Your task to perform on an android device: Open Amazon Image 0: 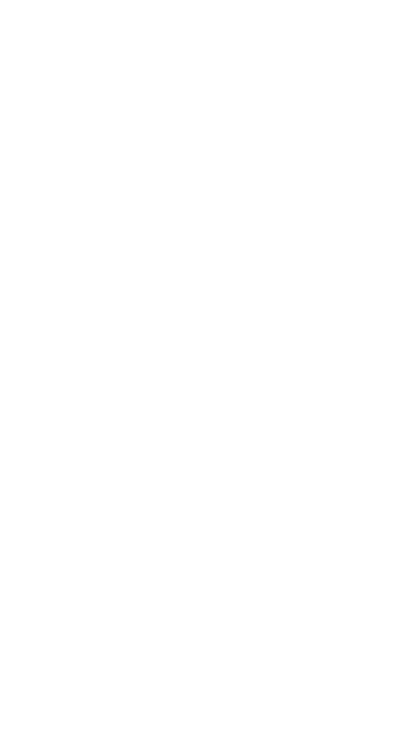
Step 0: press home button
Your task to perform on an android device: Open Amazon Image 1: 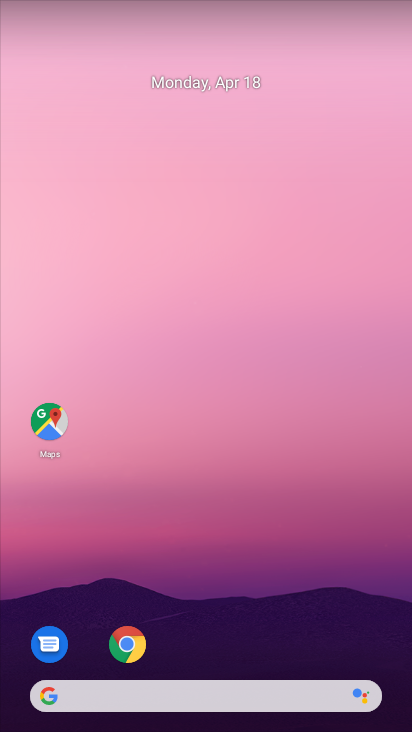
Step 1: click (124, 640)
Your task to perform on an android device: Open Amazon Image 2: 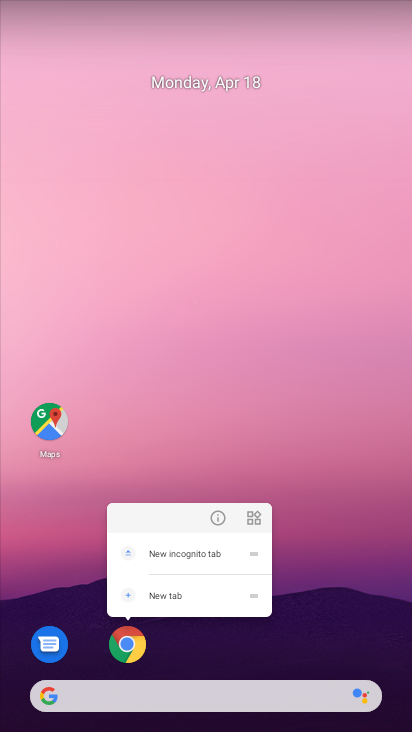
Step 2: click (124, 635)
Your task to perform on an android device: Open Amazon Image 3: 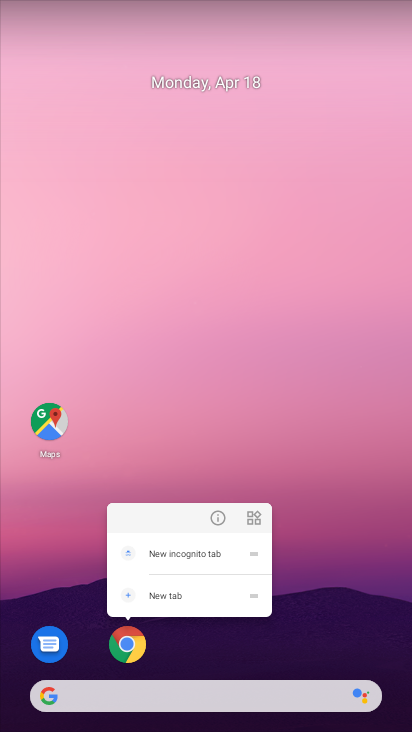
Step 3: click (124, 638)
Your task to perform on an android device: Open Amazon Image 4: 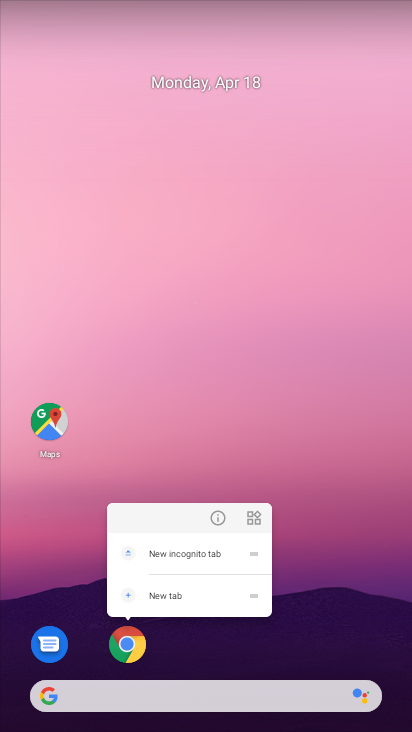
Step 4: click (183, 642)
Your task to perform on an android device: Open Amazon Image 5: 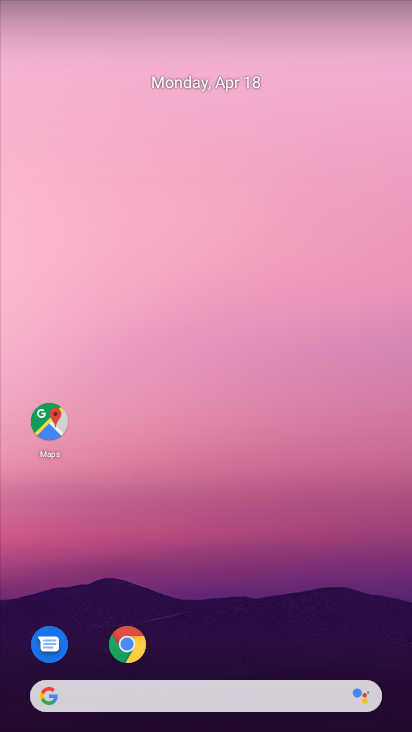
Step 5: click (333, 583)
Your task to perform on an android device: Open Amazon Image 6: 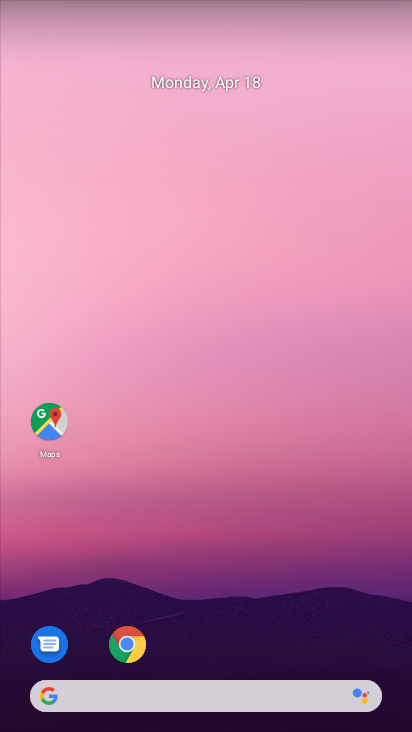
Step 6: click (126, 641)
Your task to perform on an android device: Open Amazon Image 7: 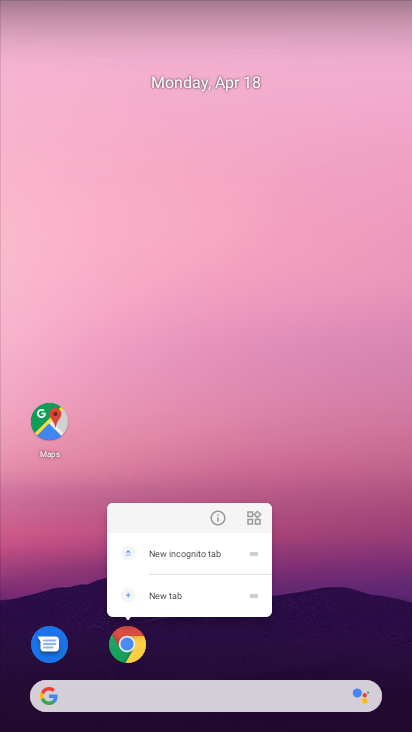
Step 7: click (172, 643)
Your task to perform on an android device: Open Amazon Image 8: 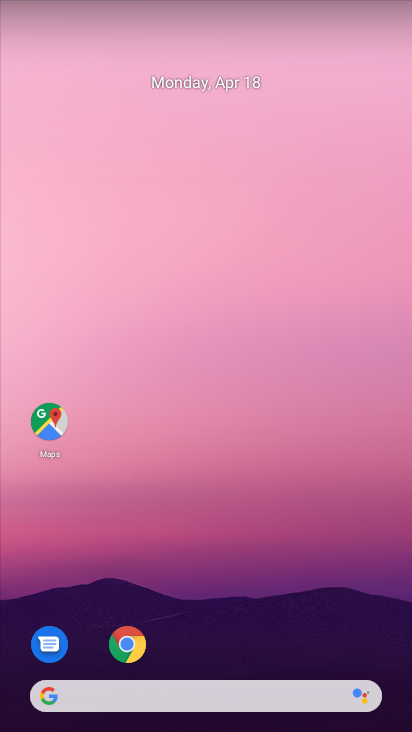
Step 8: click (83, 637)
Your task to perform on an android device: Open Amazon Image 9: 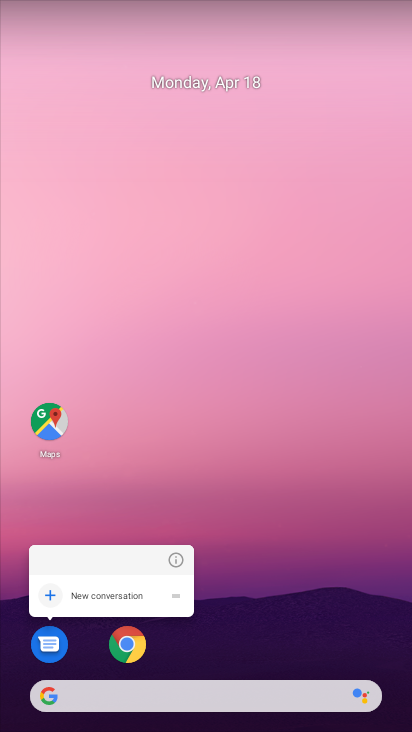
Step 9: click (124, 638)
Your task to perform on an android device: Open Amazon Image 10: 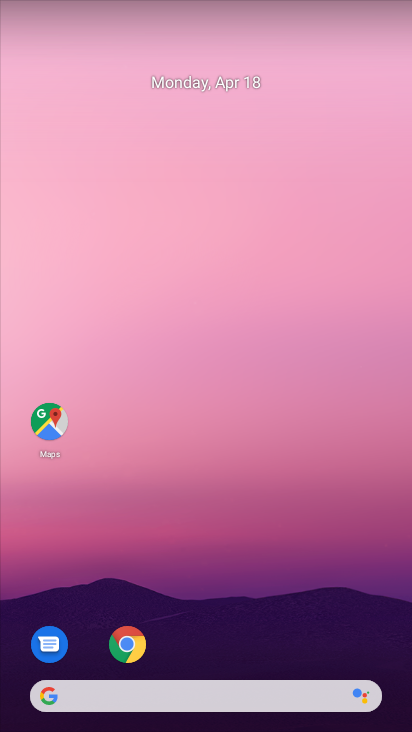
Step 10: click (160, 662)
Your task to perform on an android device: Open Amazon Image 11: 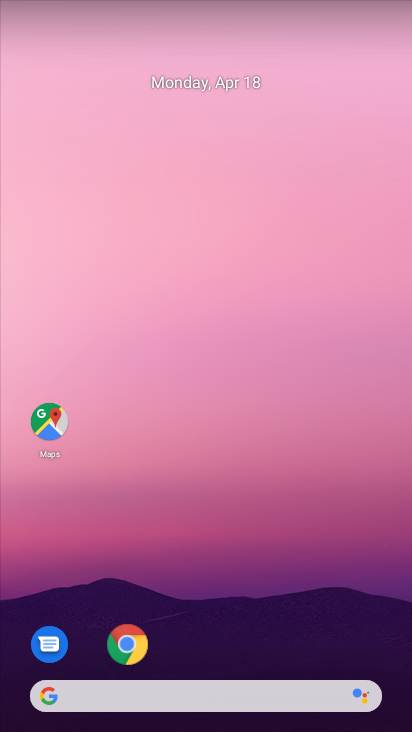
Step 11: click (171, 619)
Your task to perform on an android device: Open Amazon Image 12: 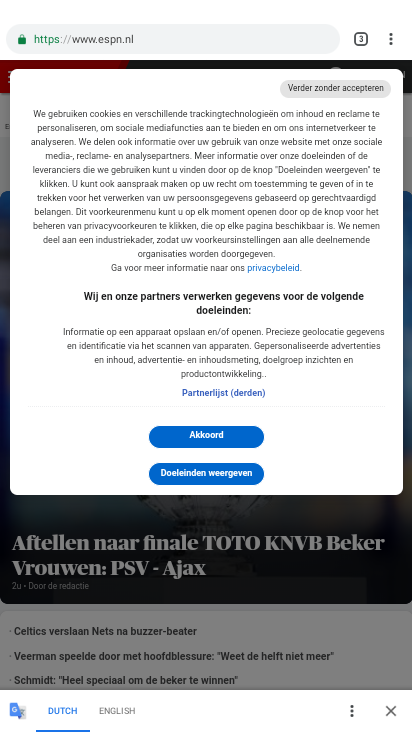
Step 12: click (360, 34)
Your task to perform on an android device: Open Amazon Image 13: 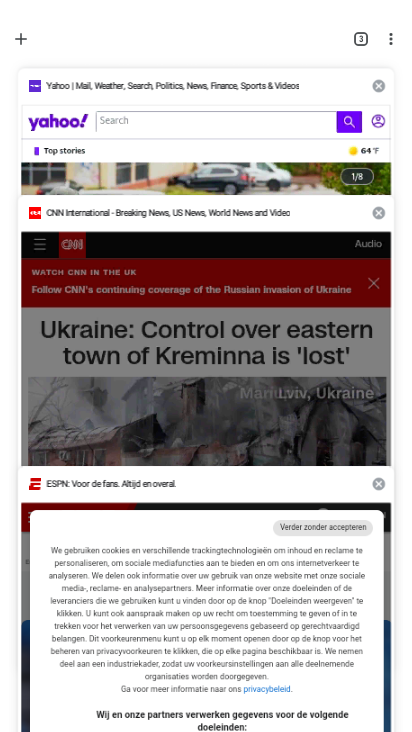
Step 13: click (378, 79)
Your task to perform on an android device: Open Amazon Image 14: 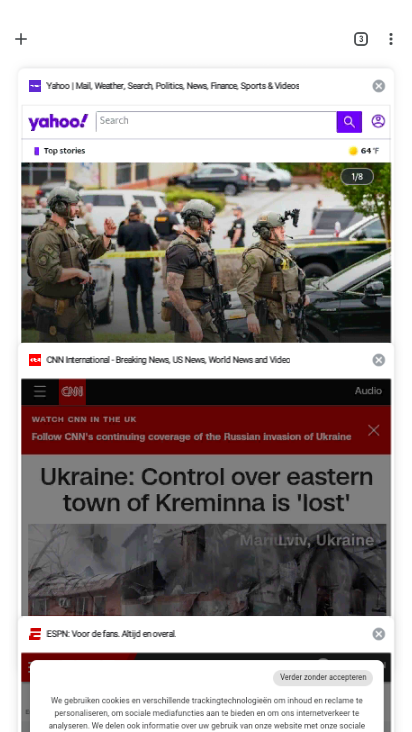
Step 14: click (378, 84)
Your task to perform on an android device: Open Amazon Image 15: 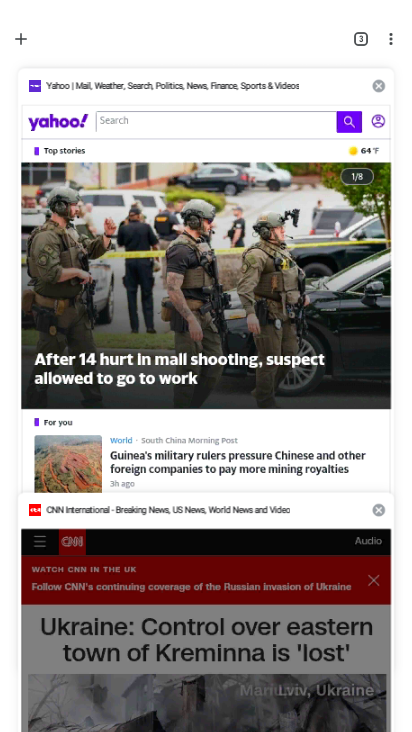
Step 15: click (378, 84)
Your task to perform on an android device: Open Amazon Image 16: 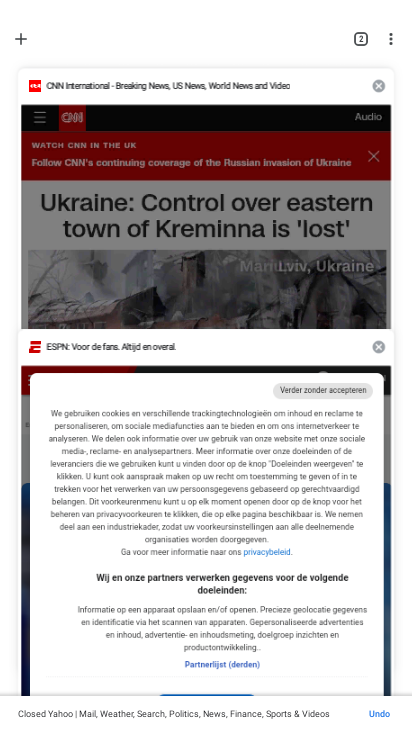
Step 16: click (378, 85)
Your task to perform on an android device: Open Amazon Image 17: 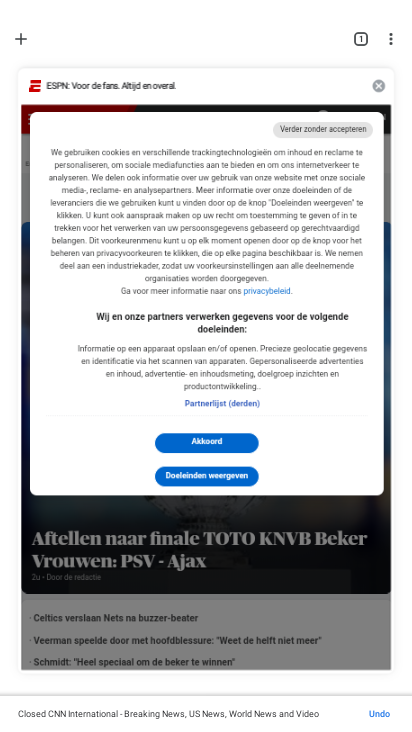
Step 17: click (378, 85)
Your task to perform on an android device: Open Amazon Image 18: 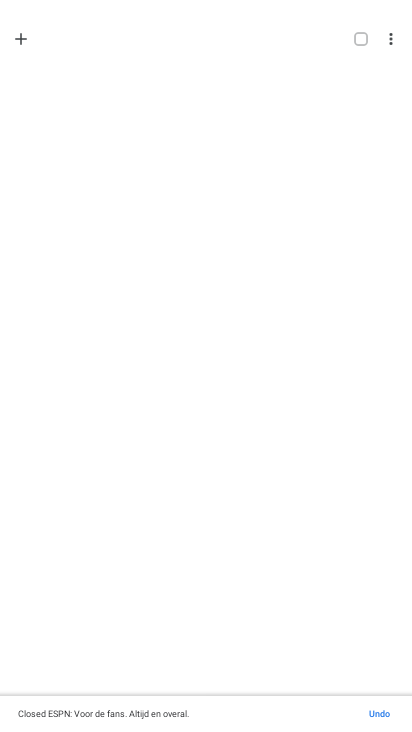
Step 18: click (21, 37)
Your task to perform on an android device: Open Amazon Image 19: 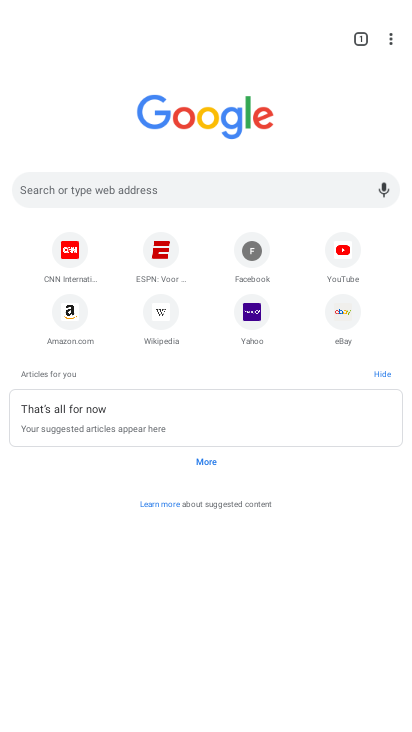
Step 19: click (65, 305)
Your task to perform on an android device: Open Amazon Image 20: 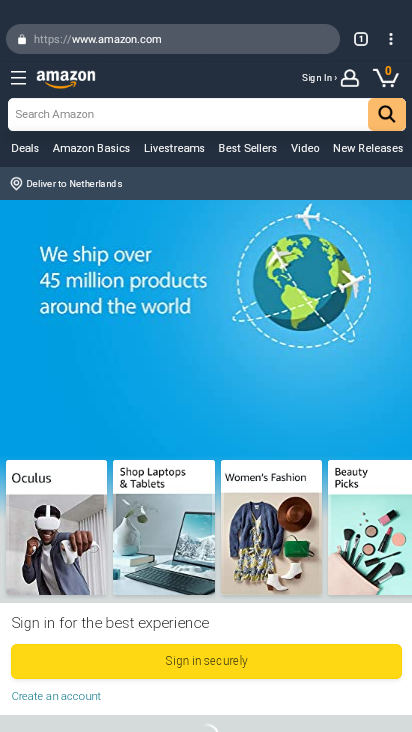
Step 20: task complete